Your task to perform on an android device: Open Chrome and go to the settings page Image 0: 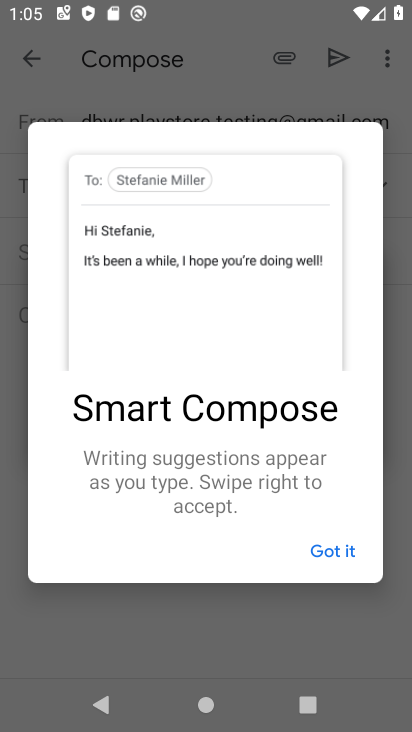
Step 0: press home button
Your task to perform on an android device: Open Chrome and go to the settings page Image 1: 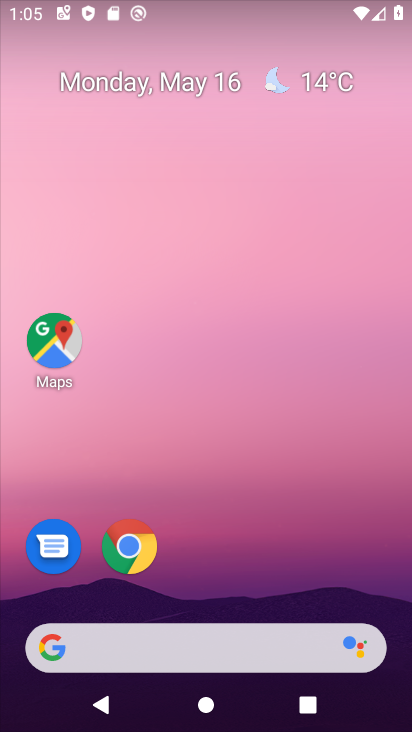
Step 1: drag from (305, 671) to (226, 106)
Your task to perform on an android device: Open Chrome and go to the settings page Image 2: 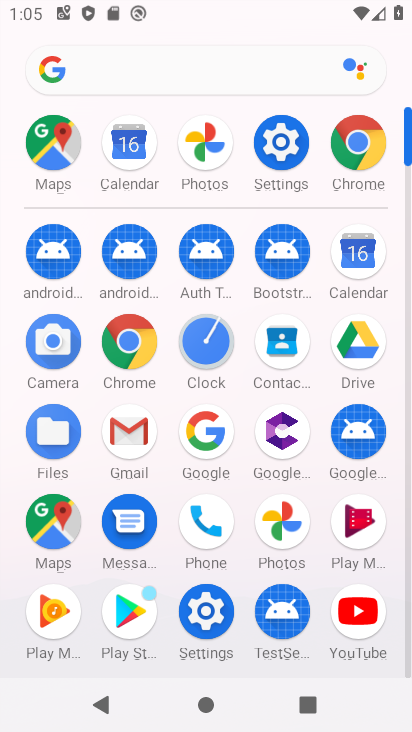
Step 2: click (367, 132)
Your task to perform on an android device: Open Chrome and go to the settings page Image 3: 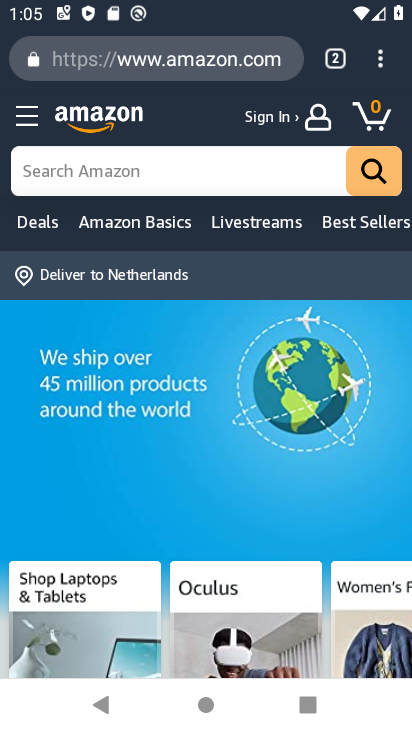
Step 3: click (379, 67)
Your task to perform on an android device: Open Chrome and go to the settings page Image 4: 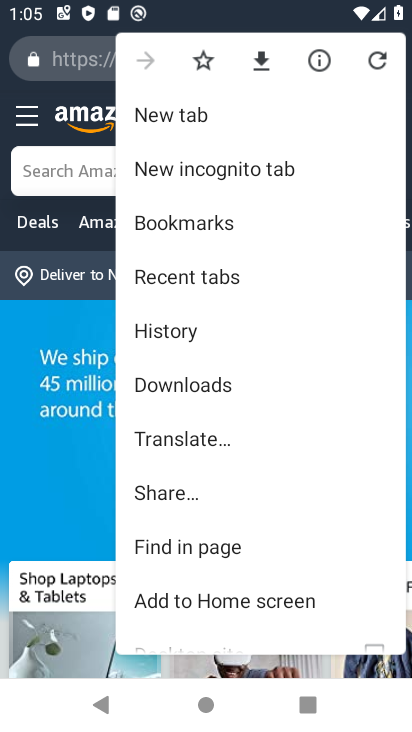
Step 4: click (196, 563)
Your task to perform on an android device: Open Chrome and go to the settings page Image 5: 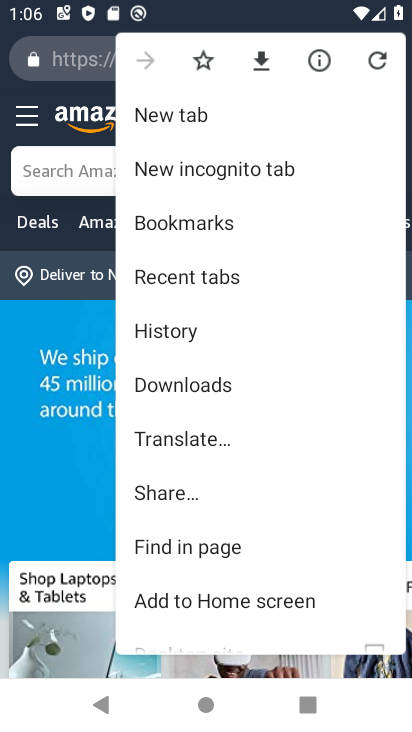
Step 5: drag from (178, 566) to (171, 408)
Your task to perform on an android device: Open Chrome and go to the settings page Image 6: 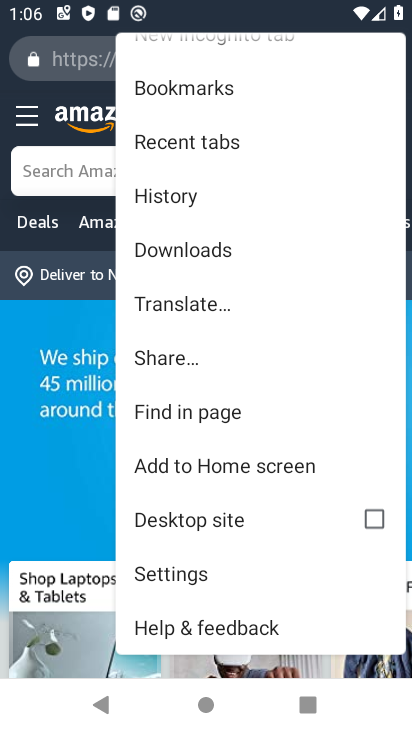
Step 6: click (203, 574)
Your task to perform on an android device: Open Chrome and go to the settings page Image 7: 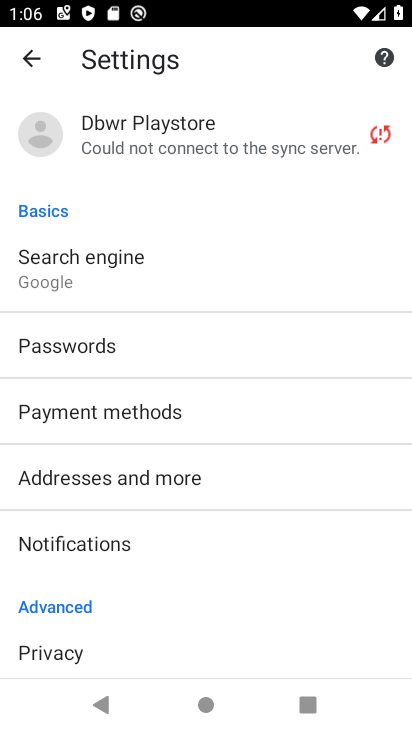
Step 7: task complete